Your task to perform on an android device: toggle airplane mode Image 0: 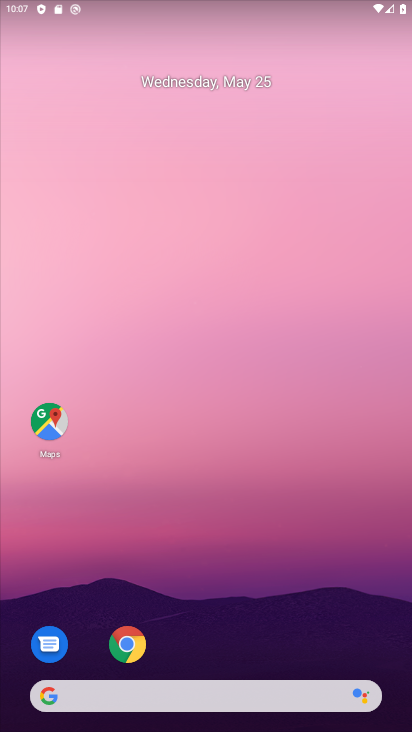
Step 0: drag from (249, 624) to (298, 102)
Your task to perform on an android device: toggle airplane mode Image 1: 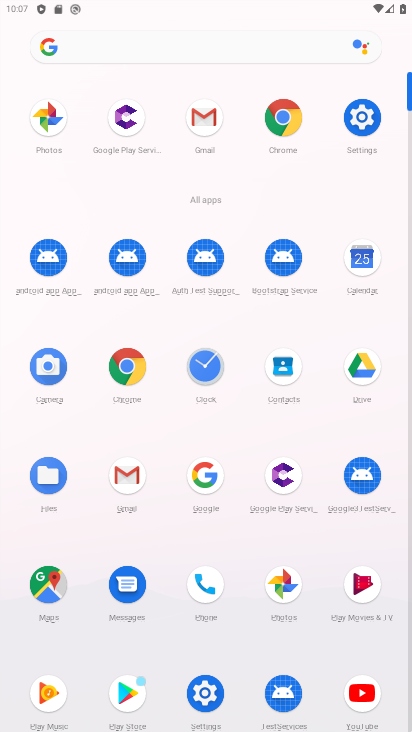
Step 1: click (369, 120)
Your task to perform on an android device: toggle airplane mode Image 2: 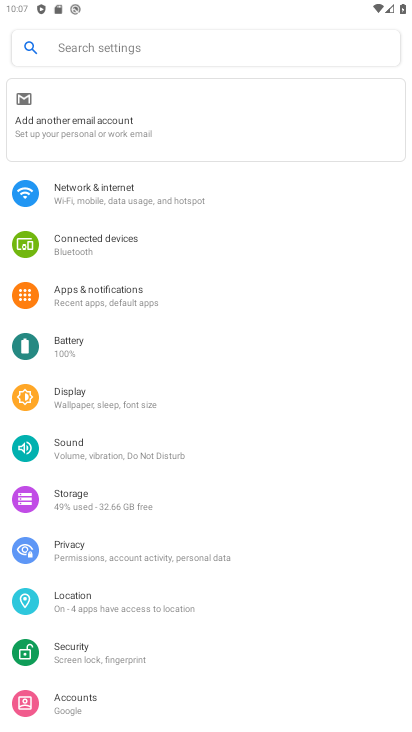
Step 2: click (108, 190)
Your task to perform on an android device: toggle airplane mode Image 3: 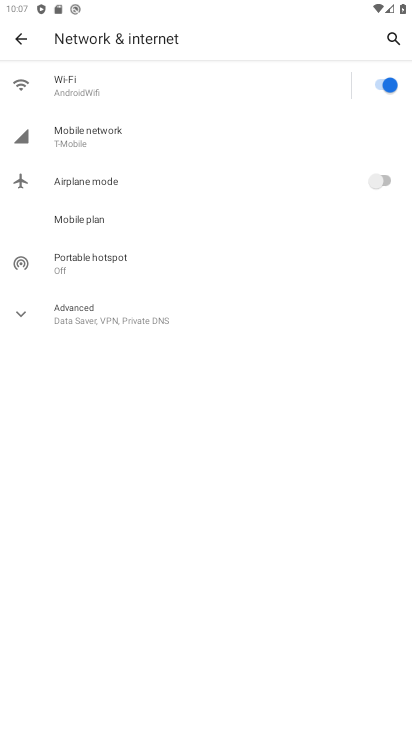
Step 3: click (384, 185)
Your task to perform on an android device: toggle airplane mode Image 4: 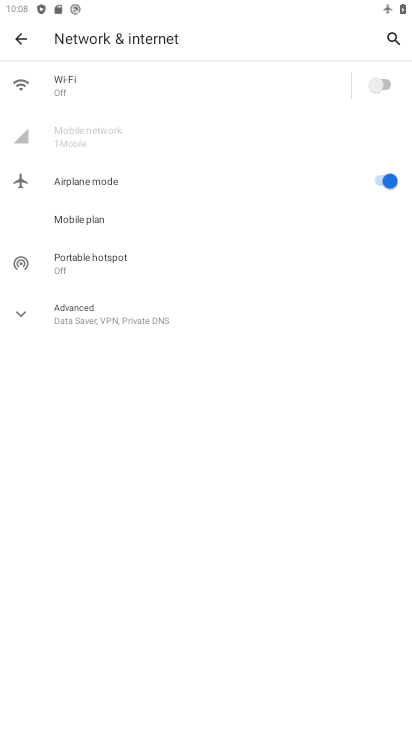
Step 4: task complete